Your task to perform on an android device: Open sound settings Image 0: 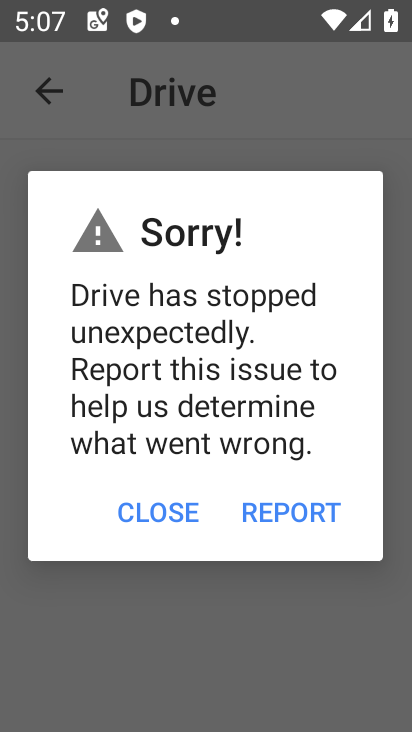
Step 0: press home button
Your task to perform on an android device: Open sound settings Image 1: 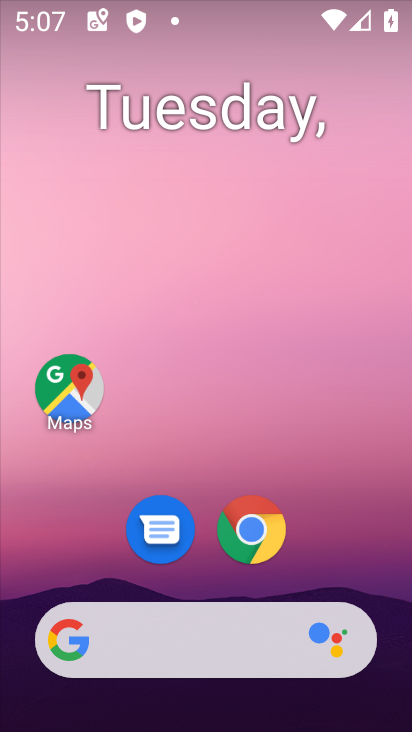
Step 1: drag from (354, 527) to (274, 171)
Your task to perform on an android device: Open sound settings Image 2: 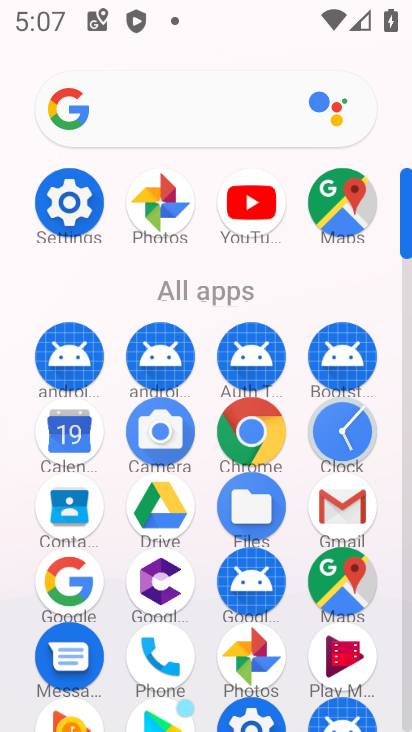
Step 2: click (64, 211)
Your task to perform on an android device: Open sound settings Image 3: 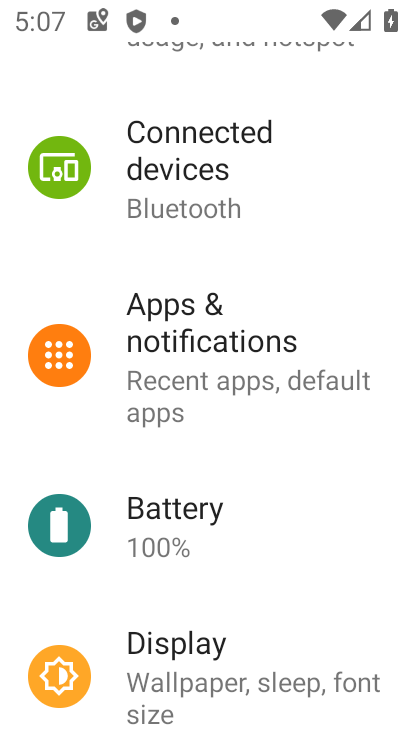
Step 3: drag from (311, 611) to (287, 240)
Your task to perform on an android device: Open sound settings Image 4: 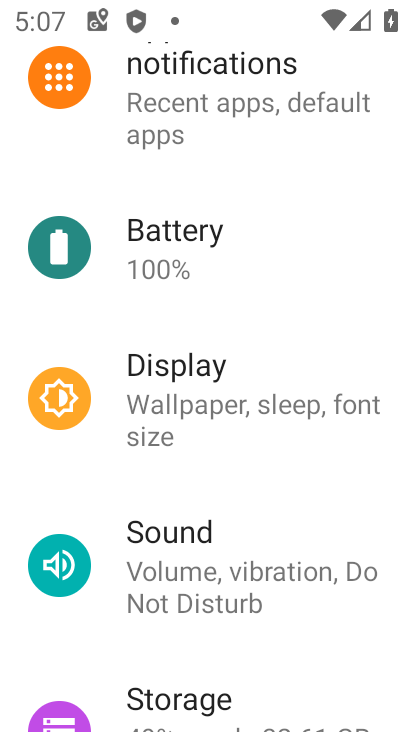
Step 4: drag from (293, 666) to (272, 318)
Your task to perform on an android device: Open sound settings Image 5: 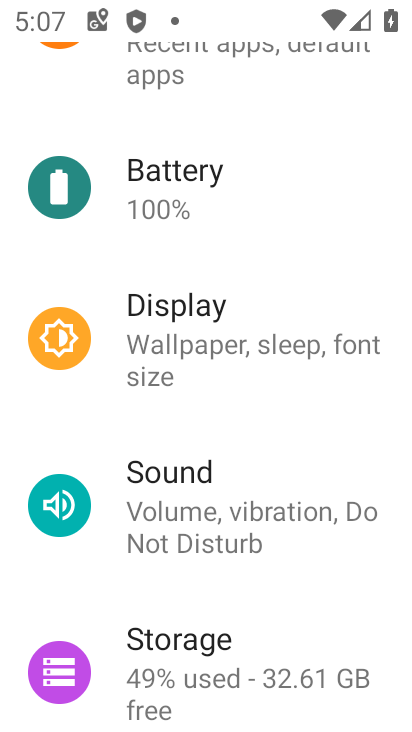
Step 5: click (194, 500)
Your task to perform on an android device: Open sound settings Image 6: 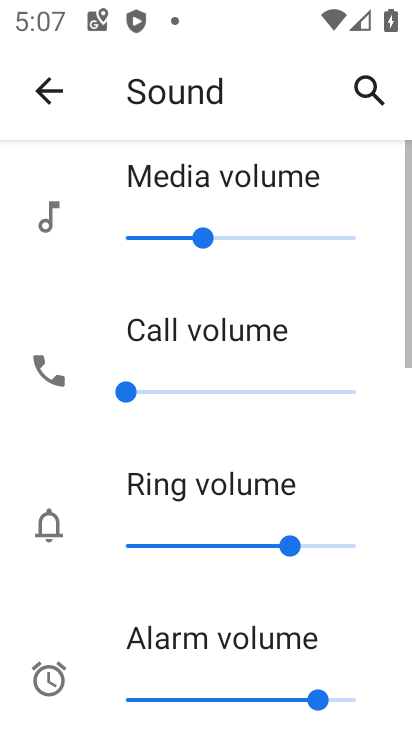
Step 6: task complete